Your task to perform on an android device: open sync settings in chrome Image 0: 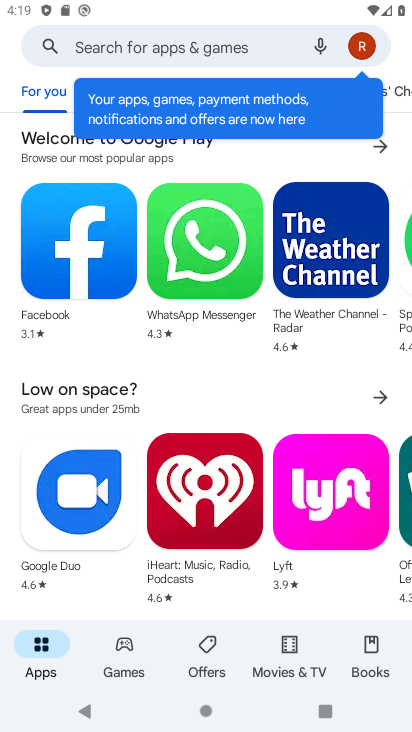
Step 0: press home button
Your task to perform on an android device: open sync settings in chrome Image 1: 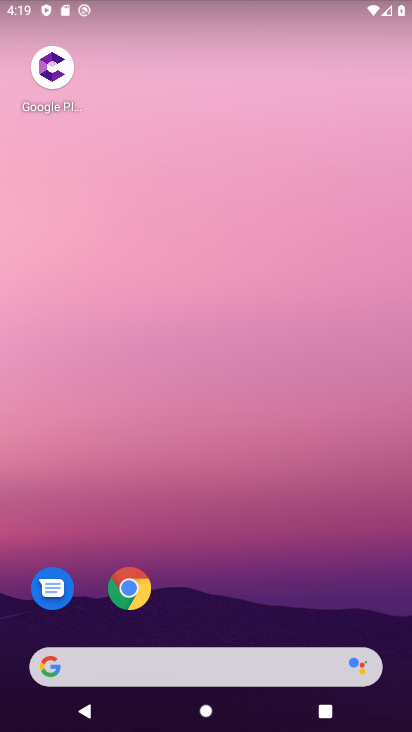
Step 1: click (110, 574)
Your task to perform on an android device: open sync settings in chrome Image 2: 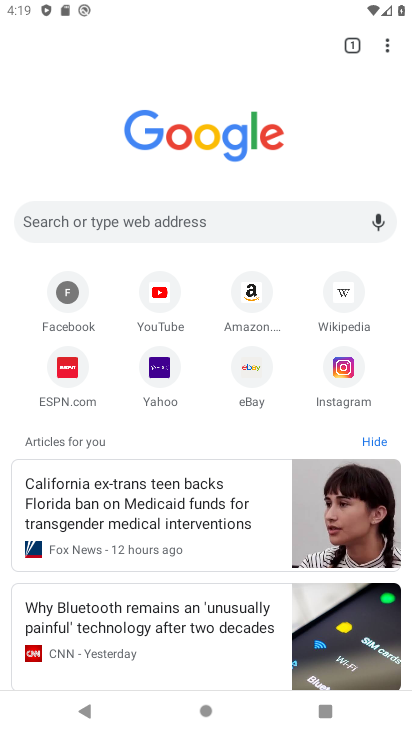
Step 2: click (386, 42)
Your task to perform on an android device: open sync settings in chrome Image 3: 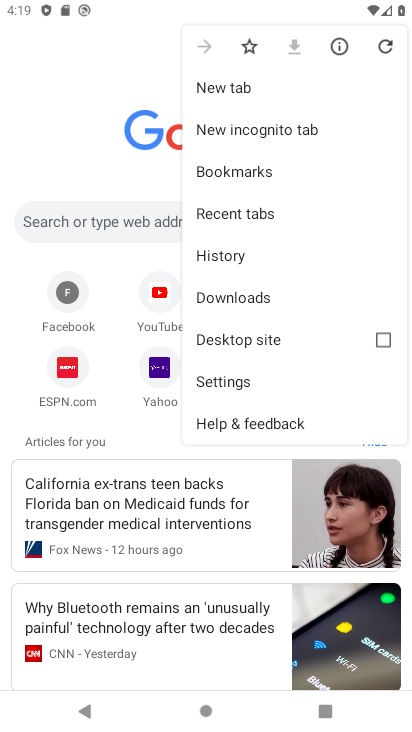
Step 3: click (231, 385)
Your task to perform on an android device: open sync settings in chrome Image 4: 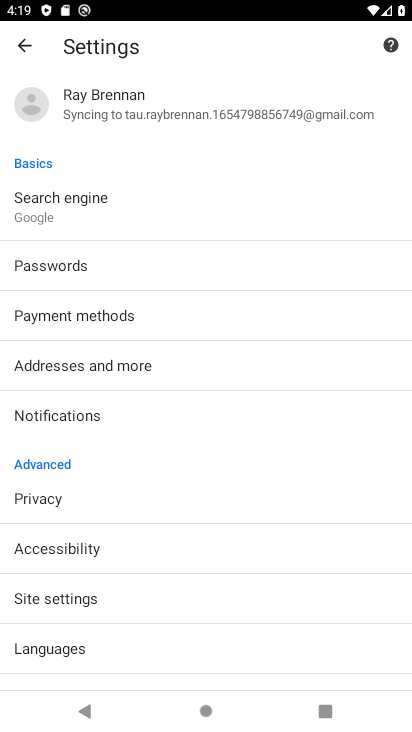
Step 4: click (73, 600)
Your task to perform on an android device: open sync settings in chrome Image 5: 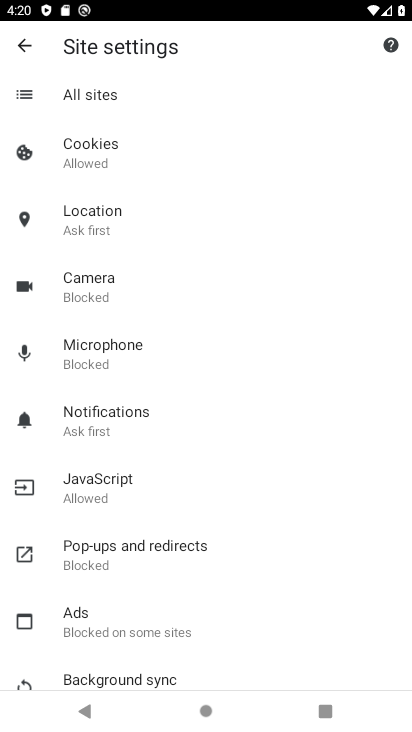
Step 5: click (108, 419)
Your task to perform on an android device: open sync settings in chrome Image 6: 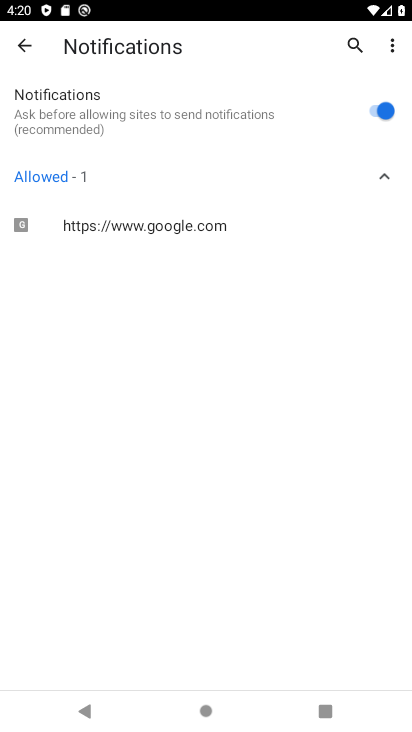
Step 6: click (23, 48)
Your task to perform on an android device: open sync settings in chrome Image 7: 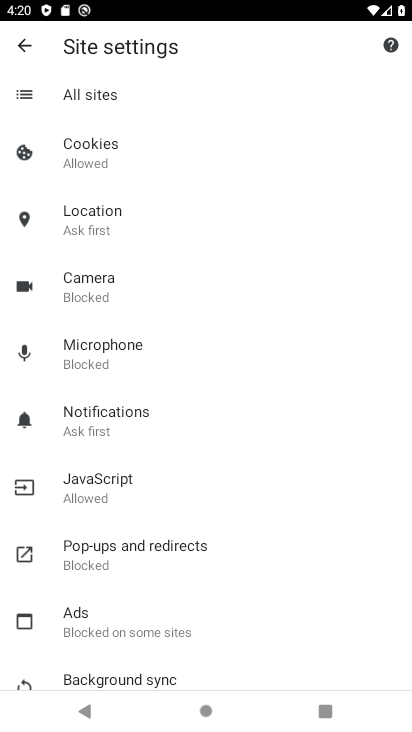
Step 7: drag from (183, 651) to (315, 170)
Your task to perform on an android device: open sync settings in chrome Image 8: 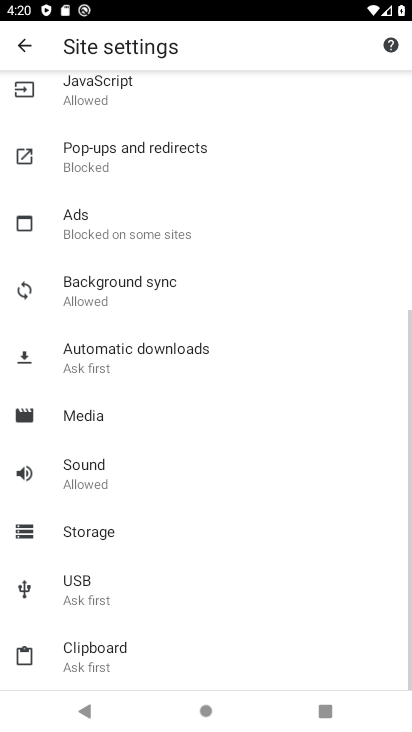
Step 8: click (147, 286)
Your task to perform on an android device: open sync settings in chrome Image 9: 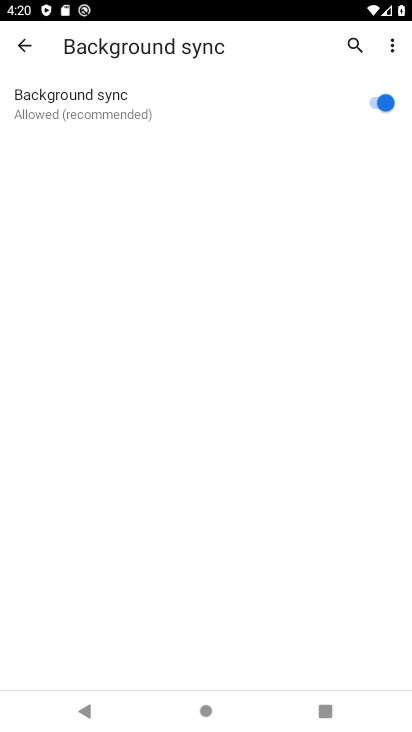
Step 9: task complete